Your task to perform on an android device: Check the news Image 0: 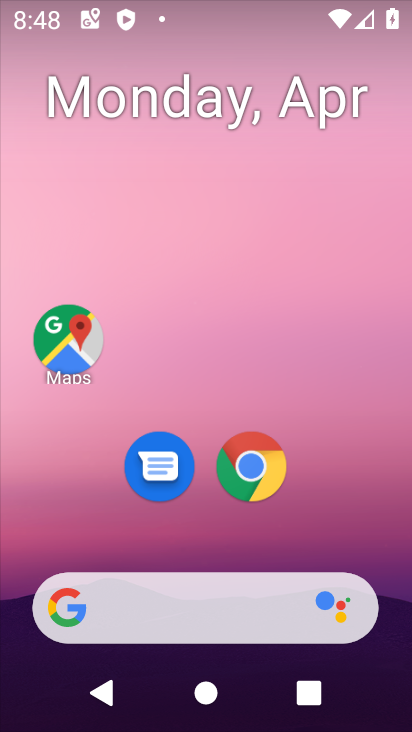
Step 0: drag from (186, 512) to (293, 127)
Your task to perform on an android device: Check the news Image 1: 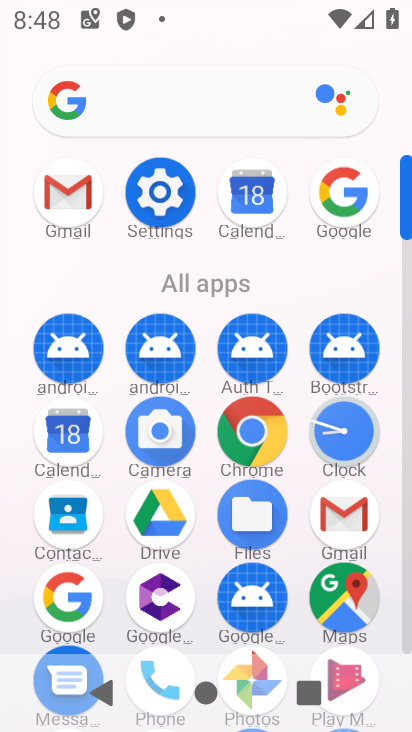
Step 1: click (349, 189)
Your task to perform on an android device: Check the news Image 2: 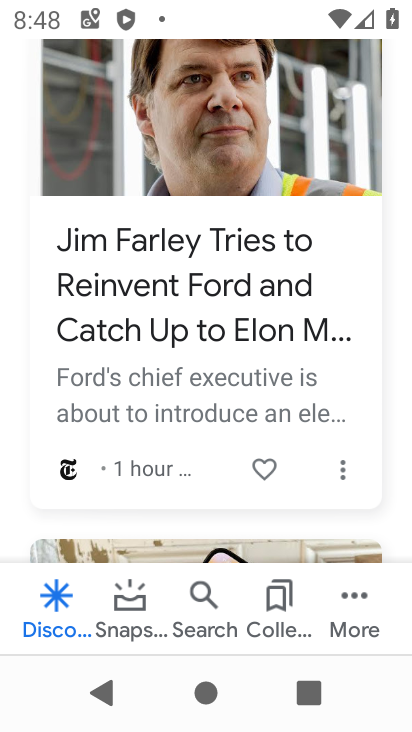
Step 2: drag from (280, 236) to (289, 430)
Your task to perform on an android device: Check the news Image 3: 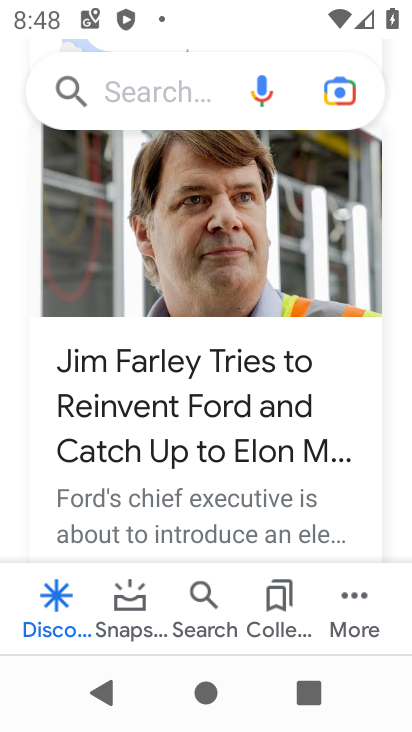
Step 3: drag from (274, 190) to (300, 380)
Your task to perform on an android device: Check the news Image 4: 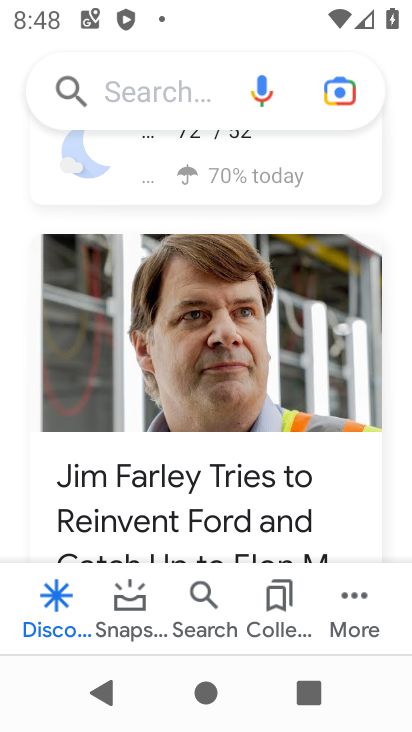
Step 4: click (185, 97)
Your task to perform on an android device: Check the news Image 5: 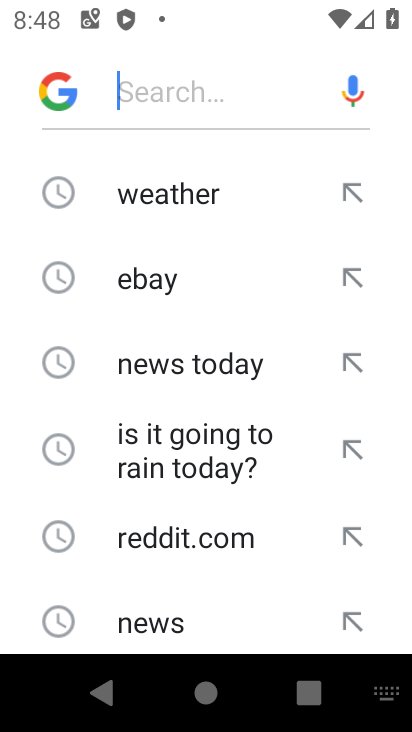
Step 5: click (157, 367)
Your task to perform on an android device: Check the news Image 6: 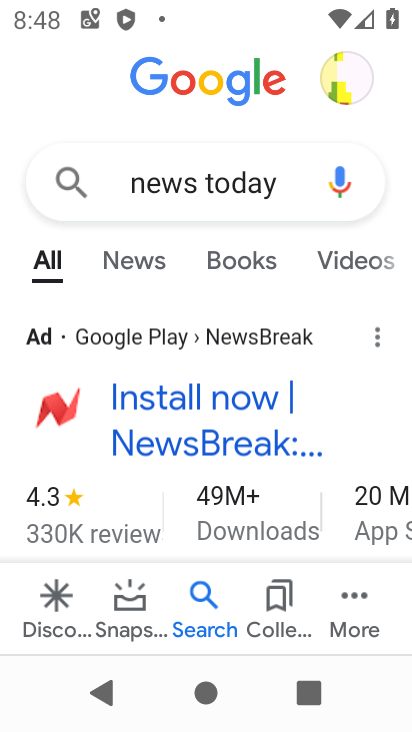
Step 6: drag from (179, 489) to (224, 293)
Your task to perform on an android device: Check the news Image 7: 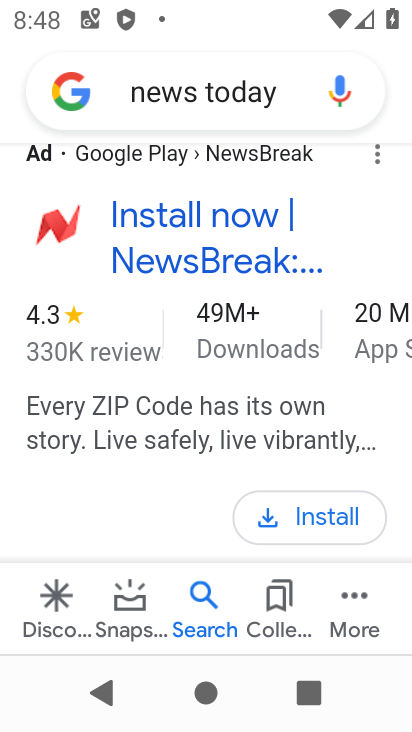
Step 7: drag from (174, 509) to (228, 316)
Your task to perform on an android device: Check the news Image 8: 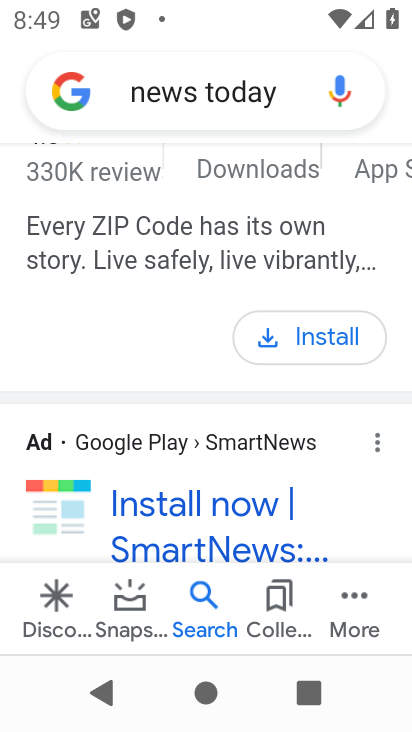
Step 8: drag from (173, 442) to (226, 243)
Your task to perform on an android device: Check the news Image 9: 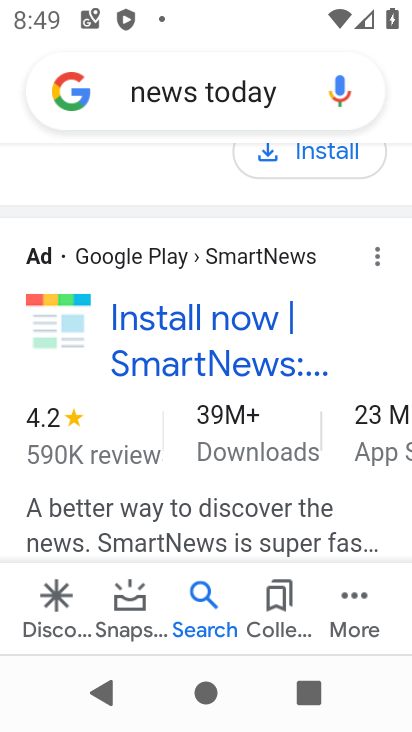
Step 9: drag from (197, 494) to (248, 245)
Your task to perform on an android device: Check the news Image 10: 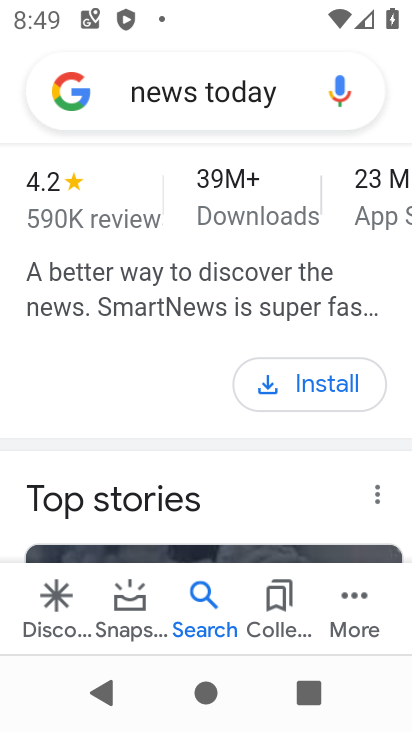
Step 10: drag from (202, 486) to (239, 242)
Your task to perform on an android device: Check the news Image 11: 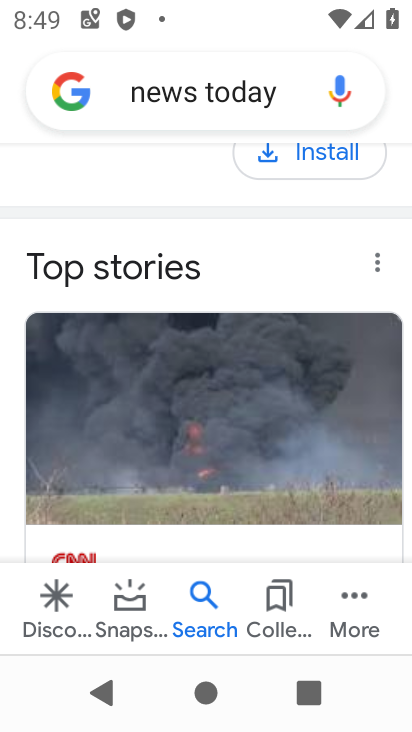
Step 11: drag from (218, 440) to (237, 243)
Your task to perform on an android device: Check the news Image 12: 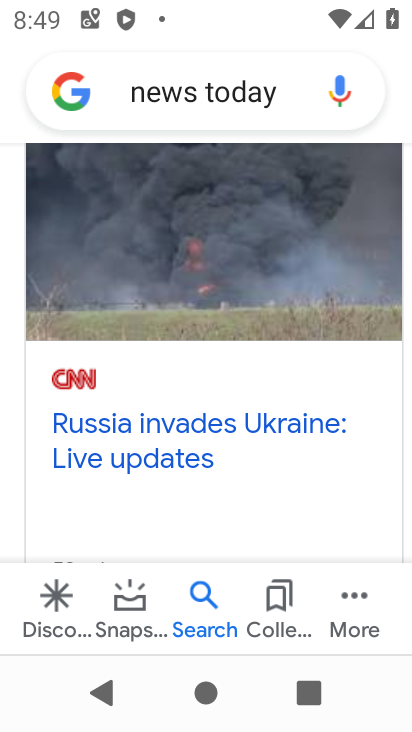
Step 12: click (214, 413)
Your task to perform on an android device: Check the news Image 13: 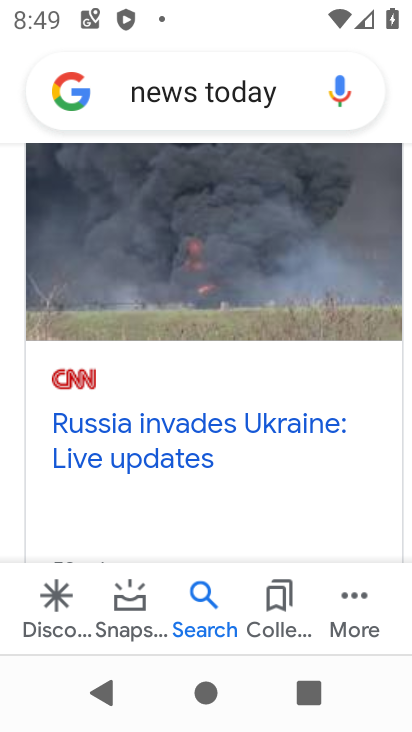
Step 13: click (142, 434)
Your task to perform on an android device: Check the news Image 14: 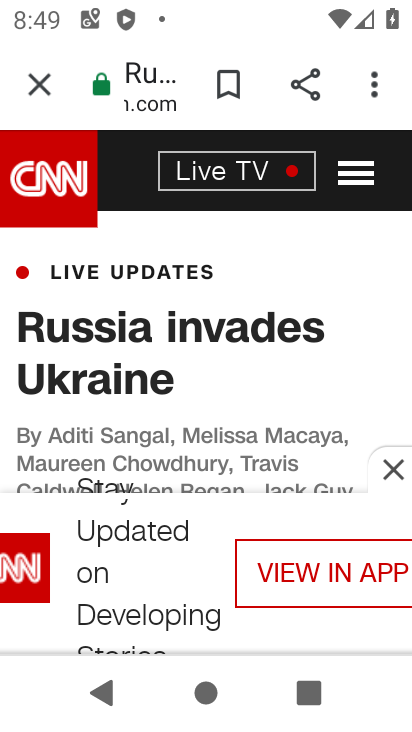
Step 14: task complete